Your task to perform on an android device: show emergency info Image 0: 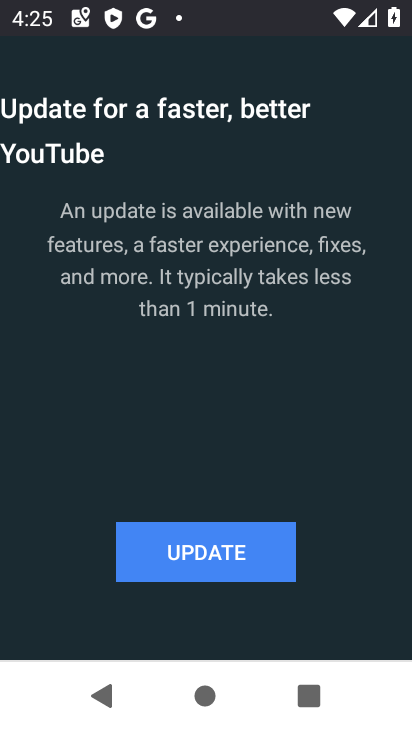
Step 0: press home button
Your task to perform on an android device: show emergency info Image 1: 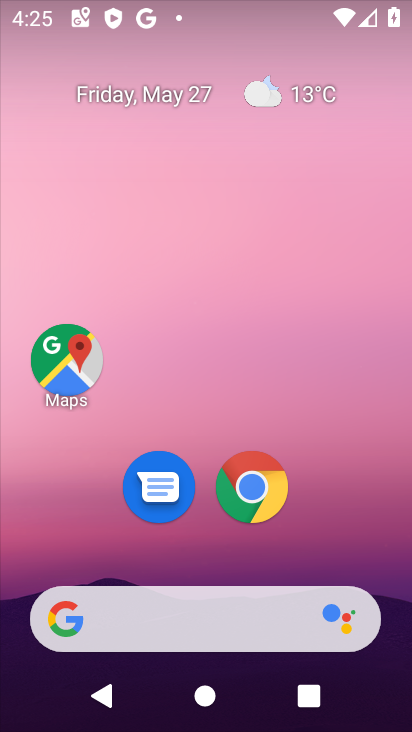
Step 1: drag from (364, 532) to (275, 187)
Your task to perform on an android device: show emergency info Image 2: 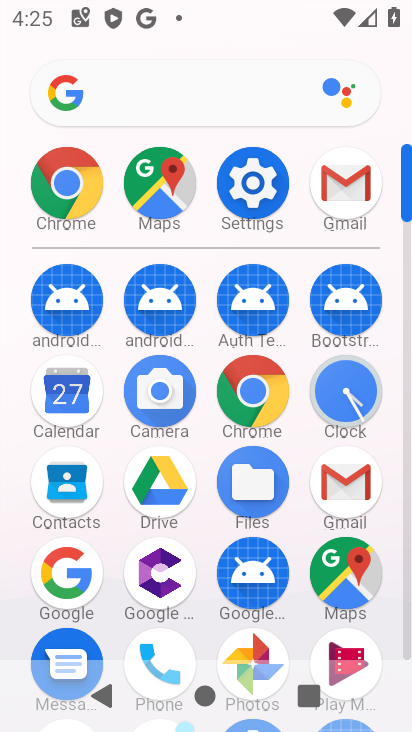
Step 2: click (259, 205)
Your task to perform on an android device: show emergency info Image 3: 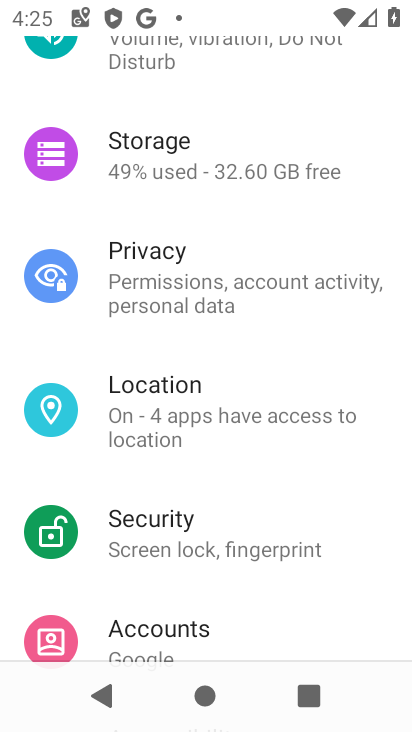
Step 3: drag from (278, 576) to (265, 77)
Your task to perform on an android device: show emergency info Image 4: 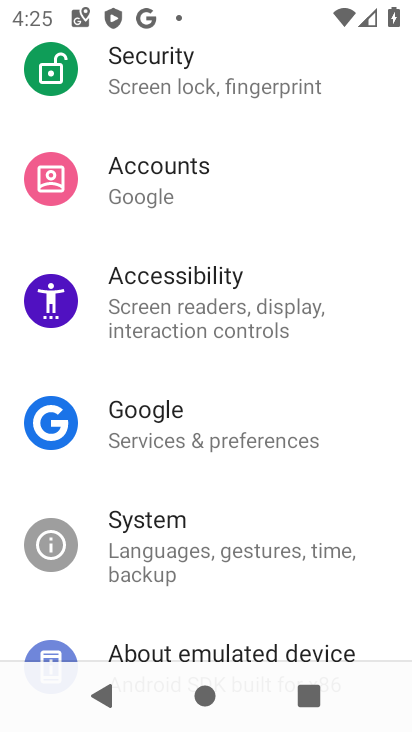
Step 4: drag from (238, 552) to (216, 206)
Your task to perform on an android device: show emergency info Image 5: 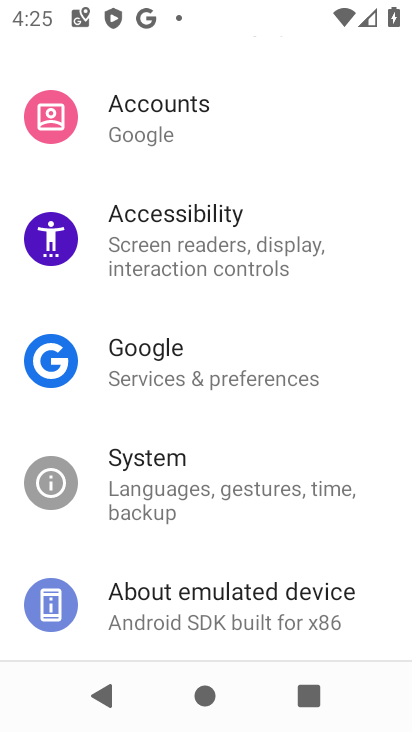
Step 5: click (209, 598)
Your task to perform on an android device: show emergency info Image 6: 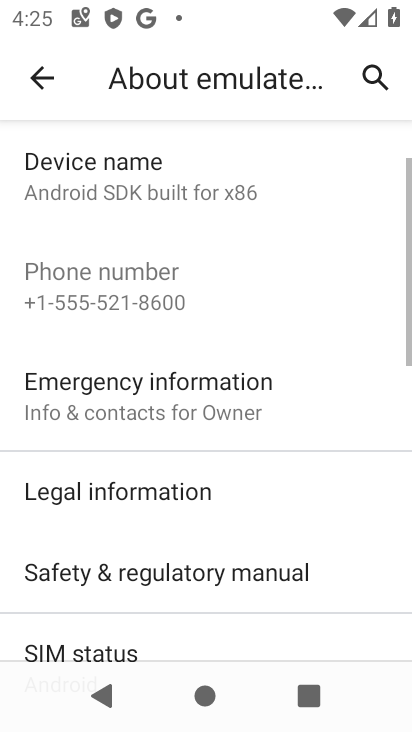
Step 6: click (208, 403)
Your task to perform on an android device: show emergency info Image 7: 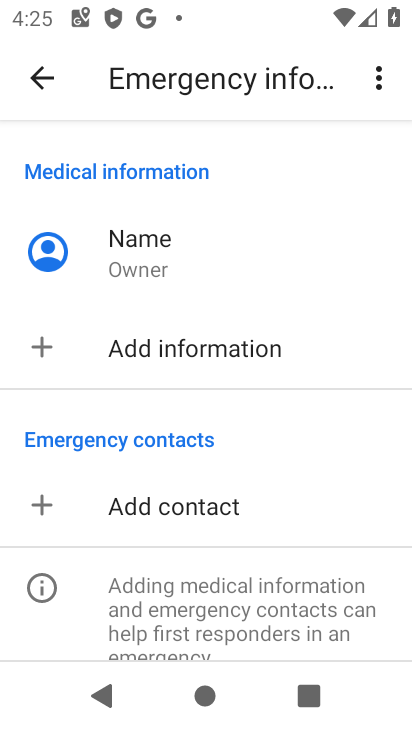
Step 7: task complete